Your task to perform on an android device: Go to Google maps Image 0: 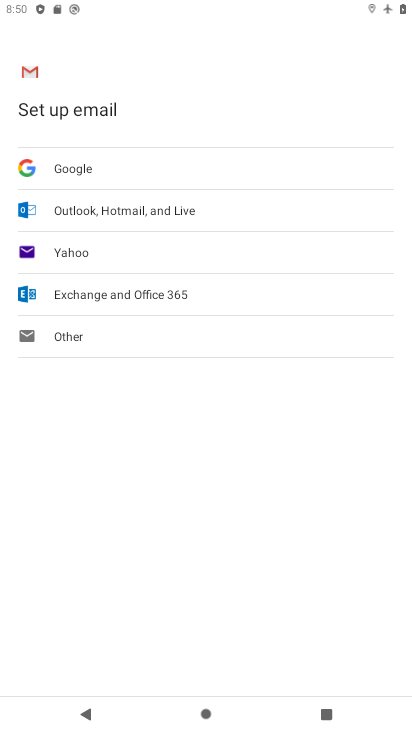
Step 0: press home button
Your task to perform on an android device: Go to Google maps Image 1: 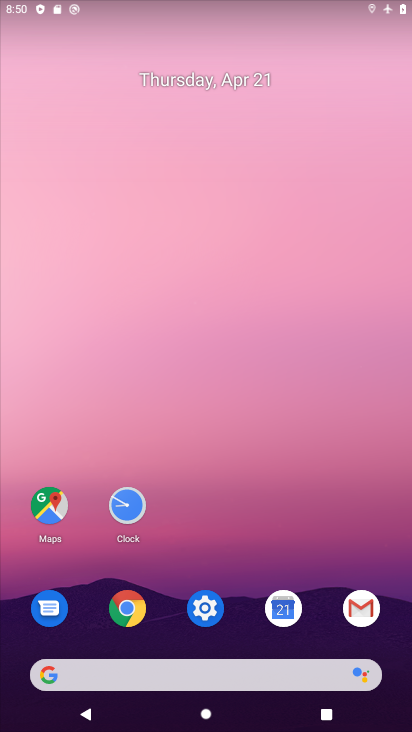
Step 1: click (44, 512)
Your task to perform on an android device: Go to Google maps Image 2: 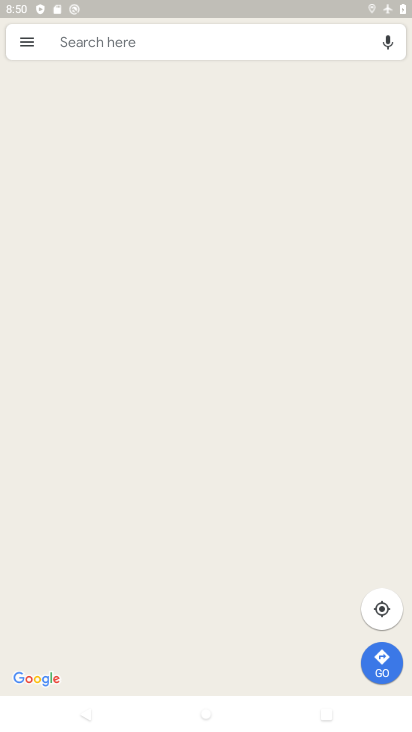
Step 2: task complete